Your task to perform on an android device: open a bookmark in the chrome app Image 0: 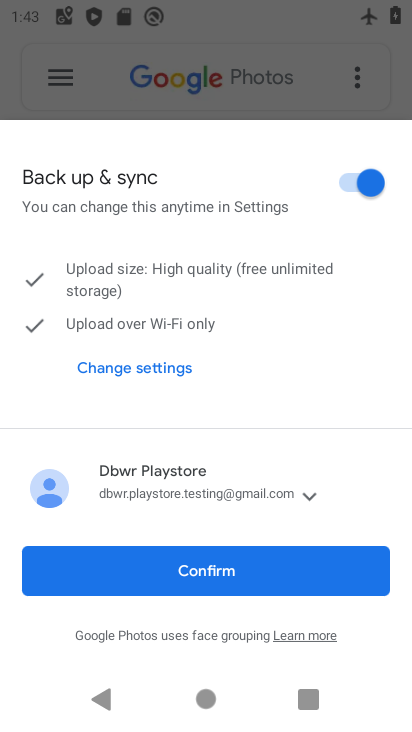
Step 0: press home button
Your task to perform on an android device: open a bookmark in the chrome app Image 1: 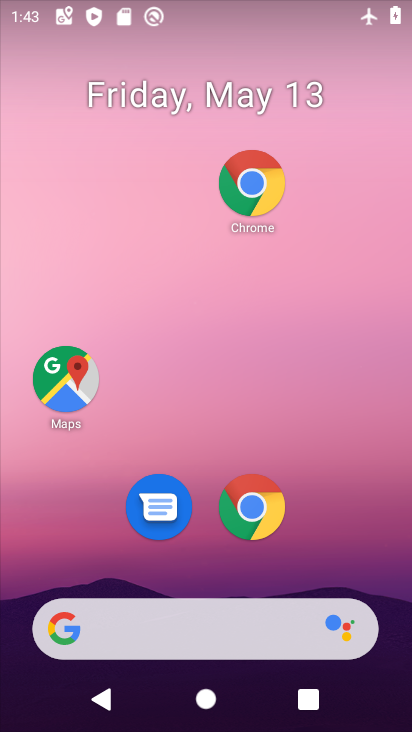
Step 1: drag from (324, 551) to (190, 0)
Your task to perform on an android device: open a bookmark in the chrome app Image 2: 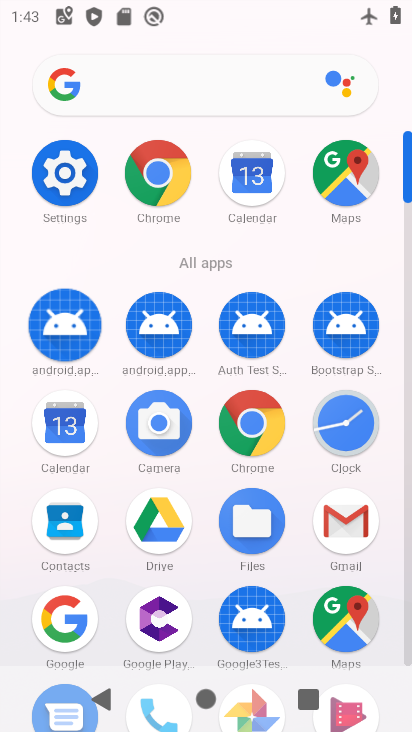
Step 2: click (162, 173)
Your task to perform on an android device: open a bookmark in the chrome app Image 3: 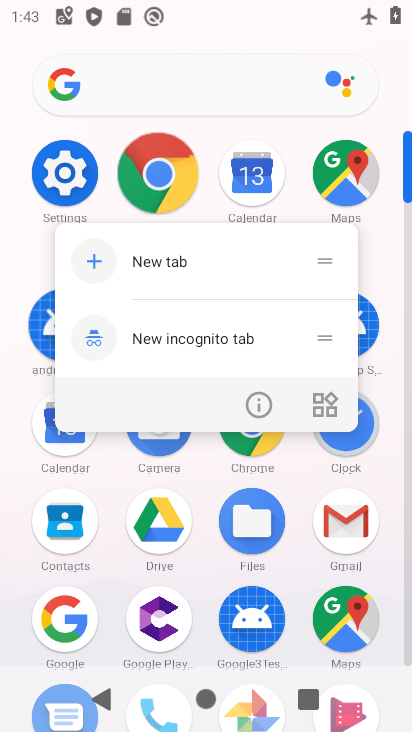
Step 3: click (161, 174)
Your task to perform on an android device: open a bookmark in the chrome app Image 4: 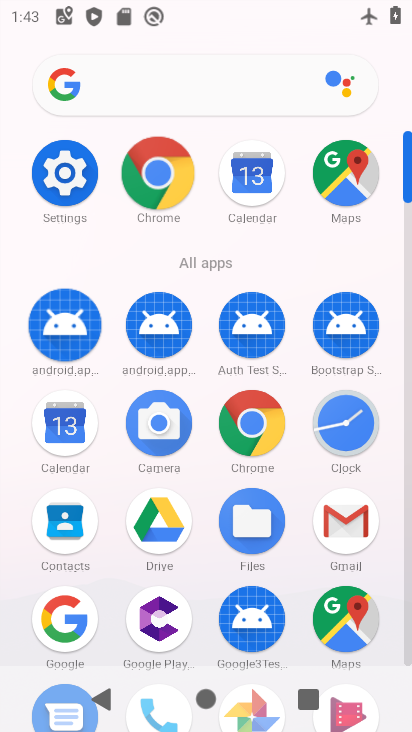
Step 4: click (161, 174)
Your task to perform on an android device: open a bookmark in the chrome app Image 5: 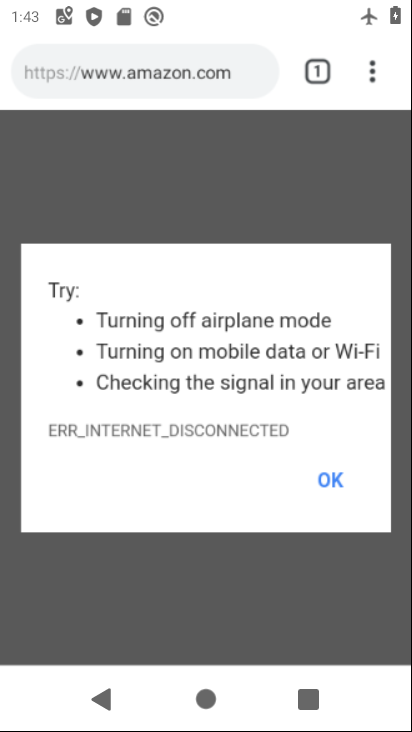
Step 5: click (161, 174)
Your task to perform on an android device: open a bookmark in the chrome app Image 6: 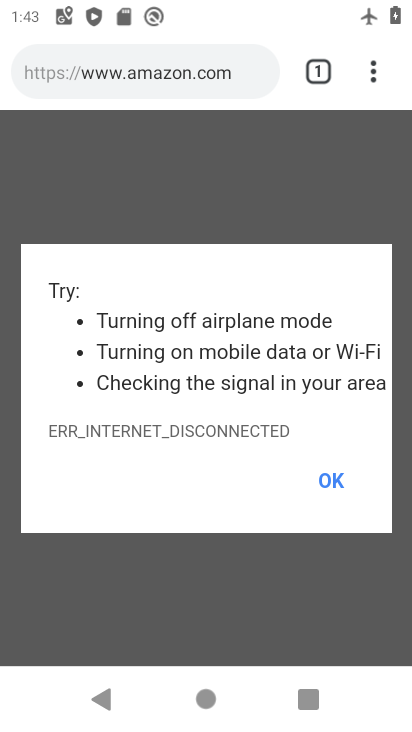
Step 6: drag from (370, 58) to (128, 271)
Your task to perform on an android device: open a bookmark in the chrome app Image 7: 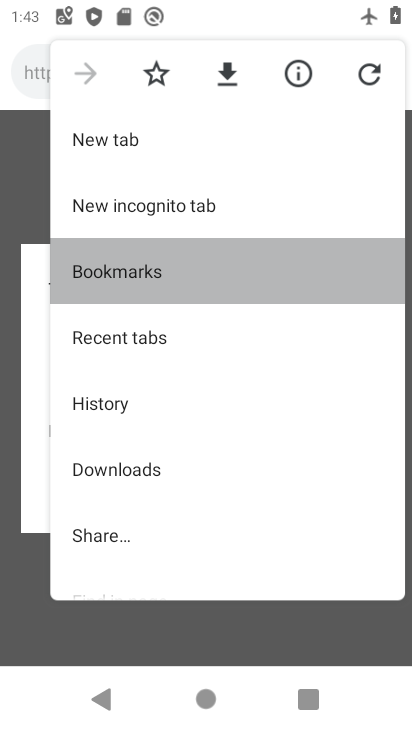
Step 7: click (128, 271)
Your task to perform on an android device: open a bookmark in the chrome app Image 8: 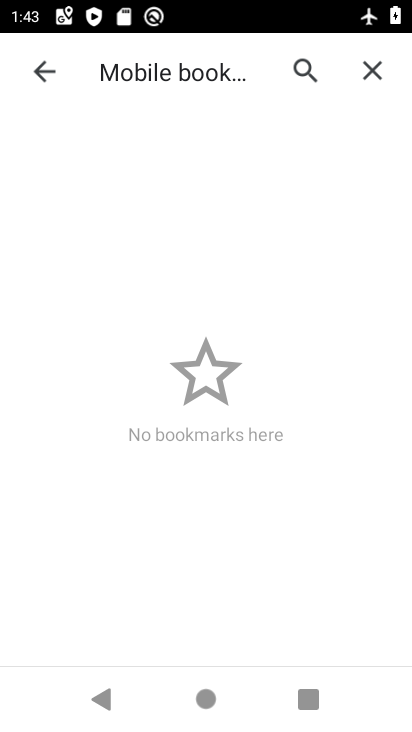
Step 8: task complete